Your task to perform on an android device: Is it going to rain this weekend? Image 0: 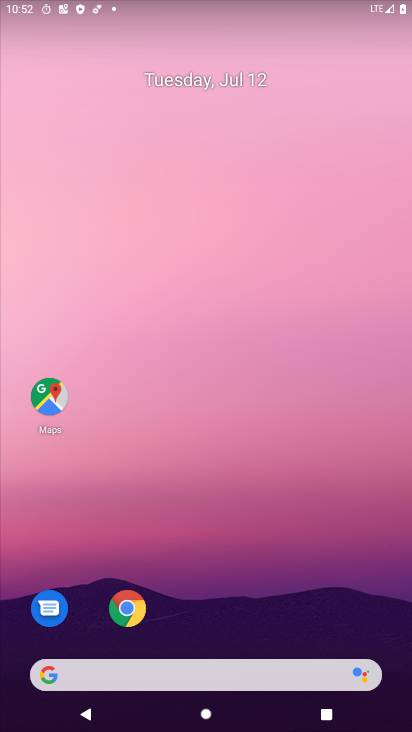
Step 0: click (221, 673)
Your task to perform on an android device: Is it going to rain this weekend? Image 1: 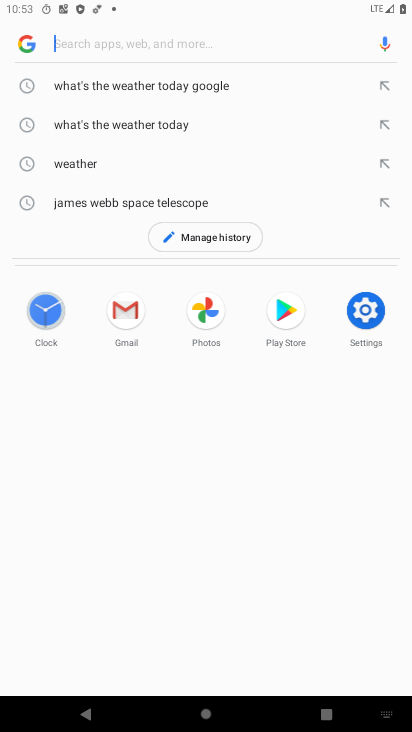
Step 1: type "is it going to rain this weekend ?"
Your task to perform on an android device: Is it going to rain this weekend? Image 2: 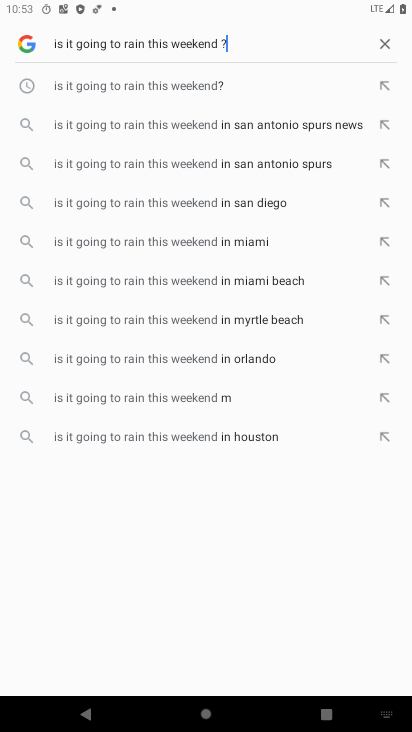
Step 2: click (94, 79)
Your task to perform on an android device: Is it going to rain this weekend? Image 3: 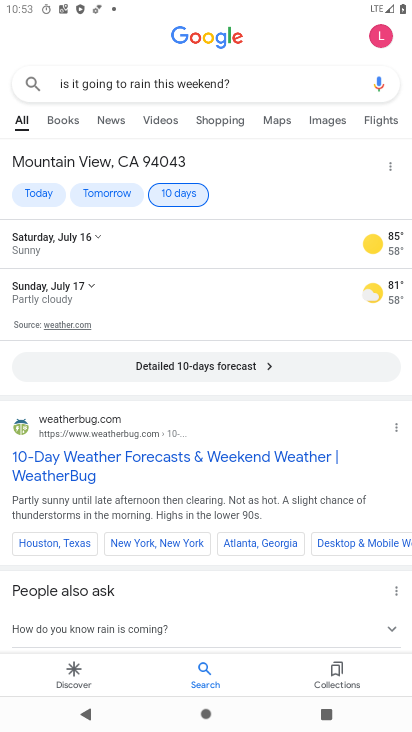
Step 3: task complete